Your task to perform on an android device: Open accessibility settings Image 0: 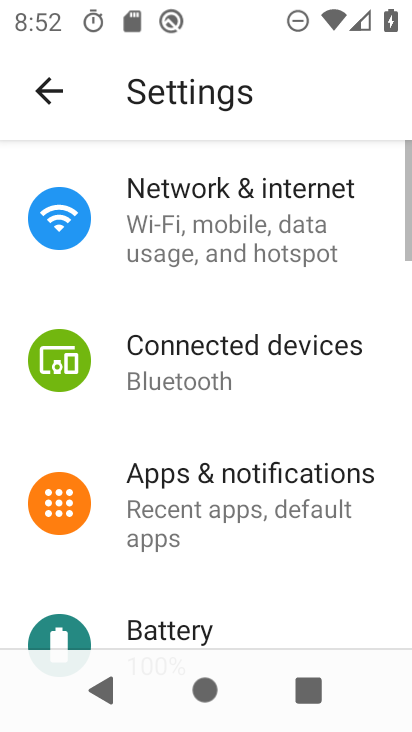
Step 0: press home button
Your task to perform on an android device: Open accessibility settings Image 1: 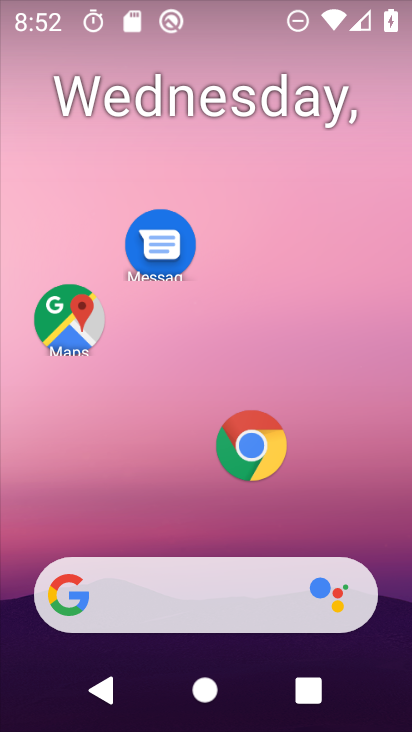
Step 1: drag from (207, 528) to (199, 106)
Your task to perform on an android device: Open accessibility settings Image 2: 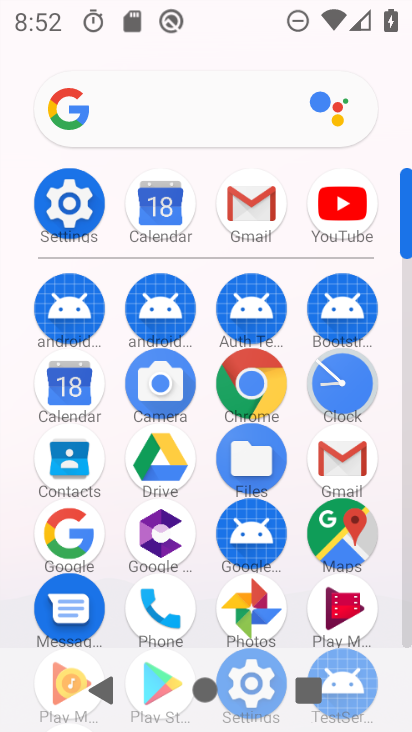
Step 2: click (60, 199)
Your task to perform on an android device: Open accessibility settings Image 3: 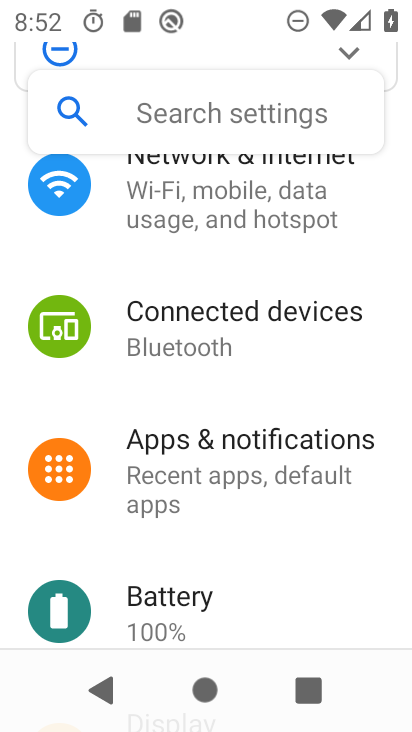
Step 3: drag from (208, 587) to (235, 121)
Your task to perform on an android device: Open accessibility settings Image 4: 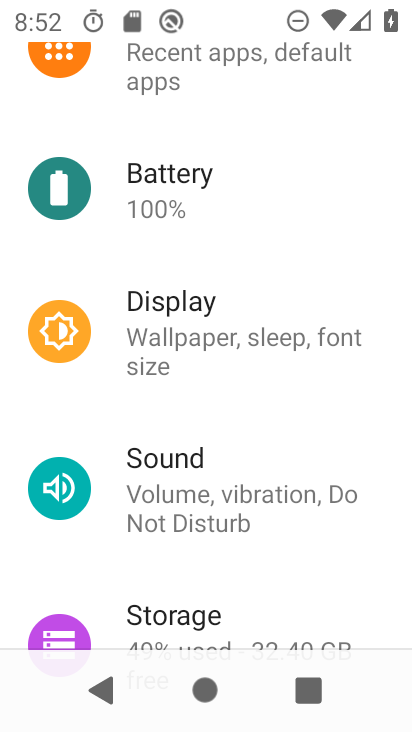
Step 4: drag from (238, 614) to (254, 95)
Your task to perform on an android device: Open accessibility settings Image 5: 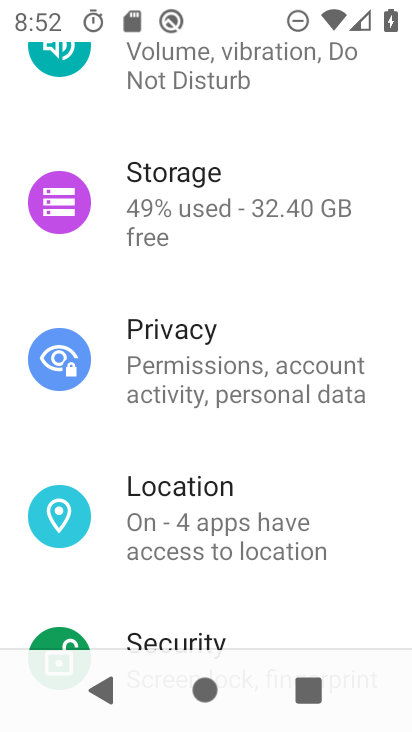
Step 5: drag from (230, 588) to (245, 124)
Your task to perform on an android device: Open accessibility settings Image 6: 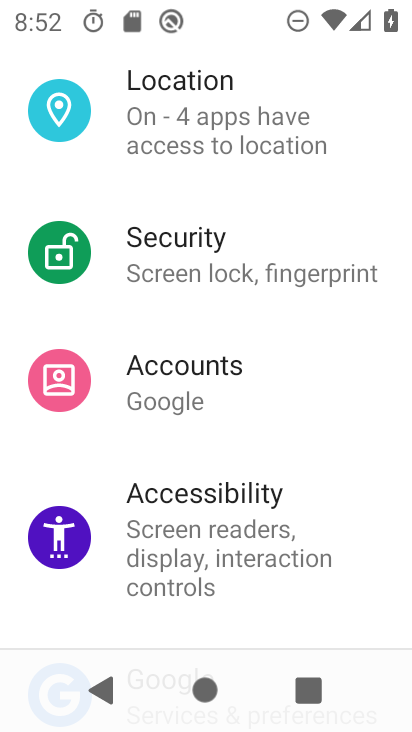
Step 6: click (222, 529)
Your task to perform on an android device: Open accessibility settings Image 7: 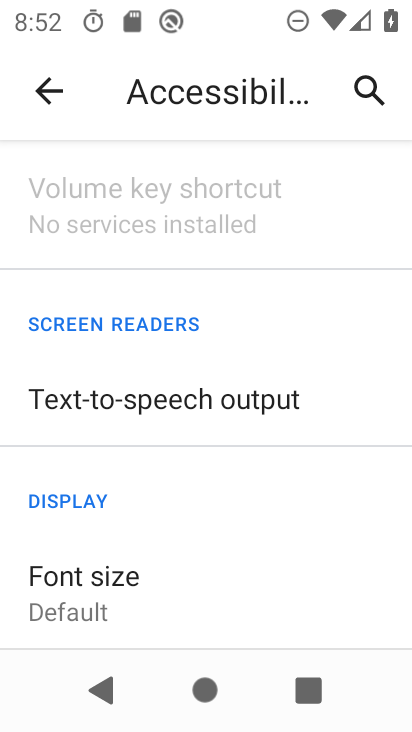
Step 7: task complete